Your task to perform on an android device: toggle data saver in the chrome app Image 0: 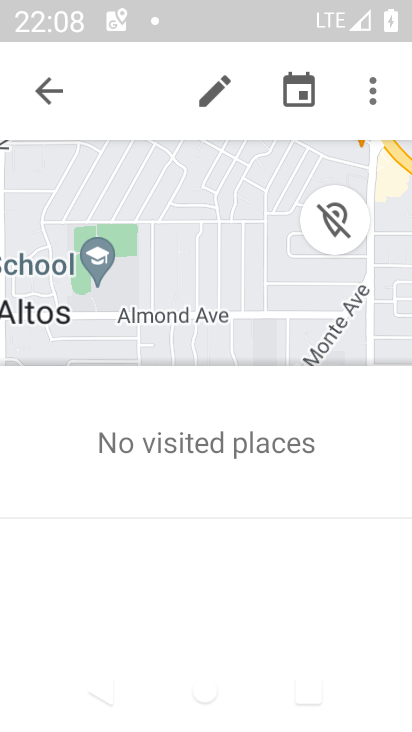
Step 0: press home button
Your task to perform on an android device: toggle data saver in the chrome app Image 1: 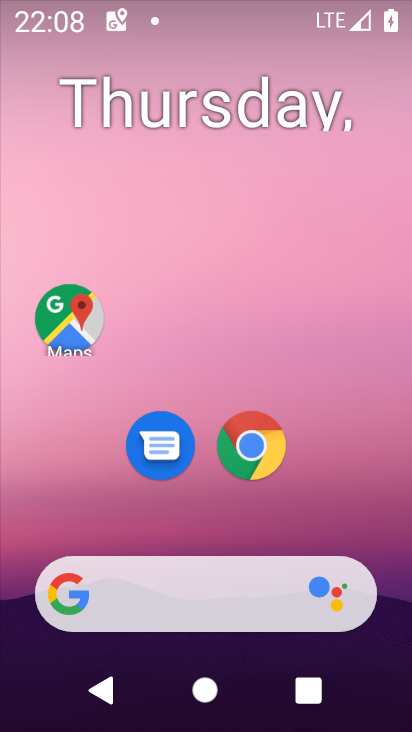
Step 1: drag from (223, 512) to (216, 169)
Your task to perform on an android device: toggle data saver in the chrome app Image 2: 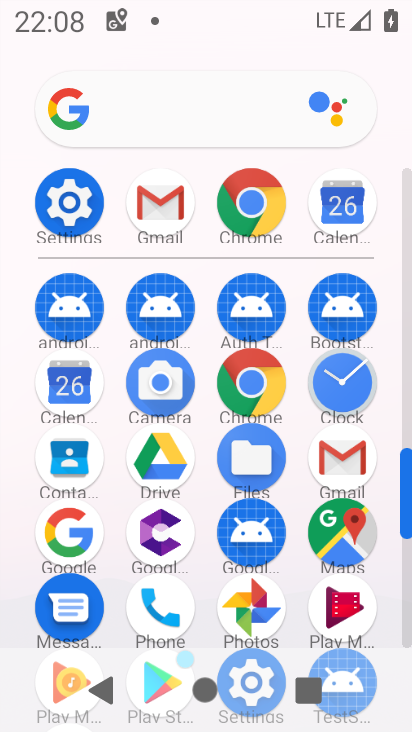
Step 2: click (245, 396)
Your task to perform on an android device: toggle data saver in the chrome app Image 3: 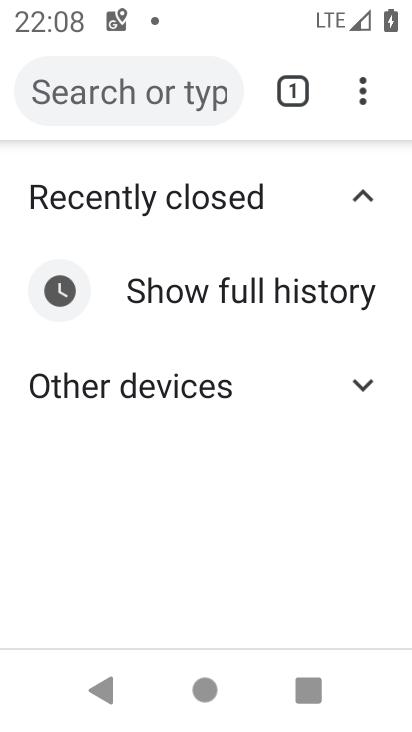
Step 3: click (367, 94)
Your task to perform on an android device: toggle data saver in the chrome app Image 4: 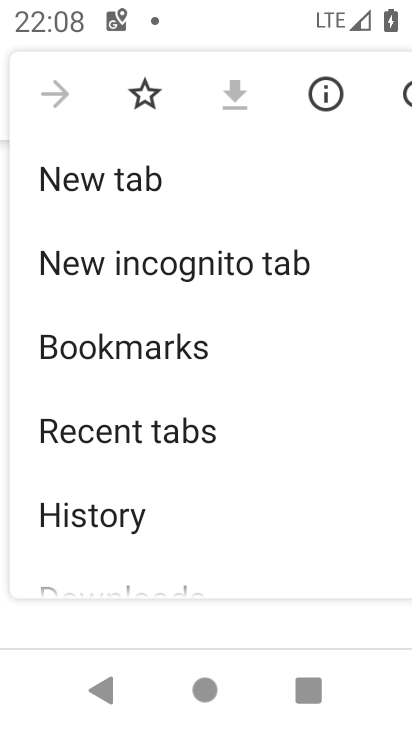
Step 4: drag from (211, 453) to (225, 166)
Your task to perform on an android device: toggle data saver in the chrome app Image 5: 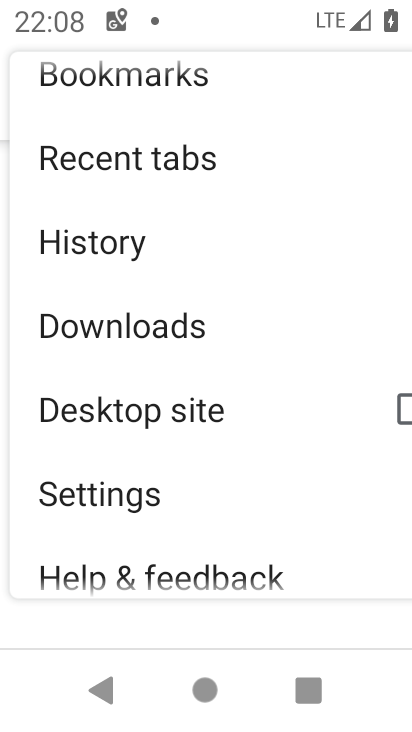
Step 5: click (161, 506)
Your task to perform on an android device: toggle data saver in the chrome app Image 6: 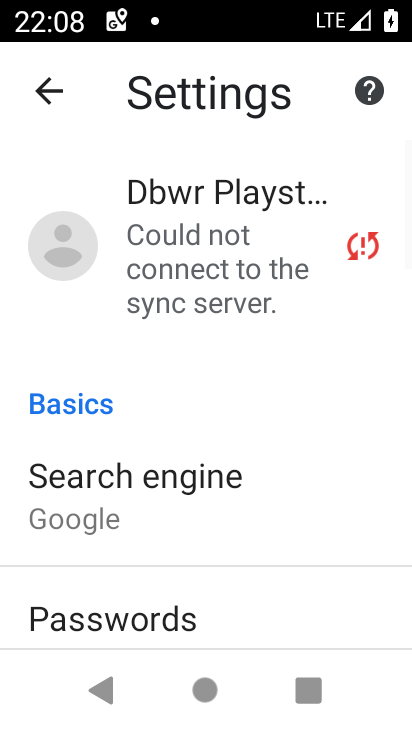
Step 6: drag from (174, 571) to (229, 217)
Your task to perform on an android device: toggle data saver in the chrome app Image 7: 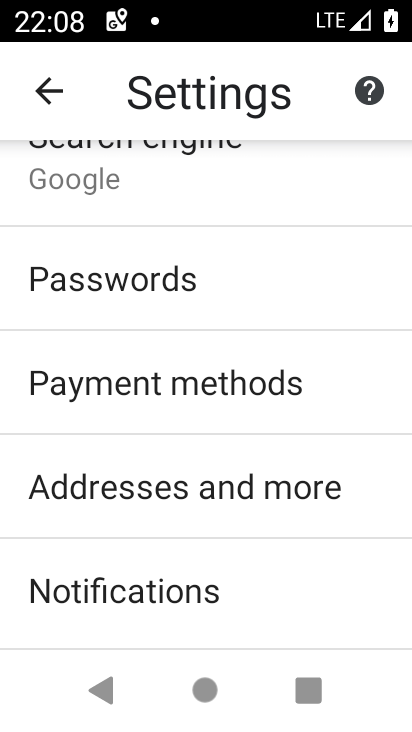
Step 7: drag from (187, 592) to (227, 287)
Your task to perform on an android device: toggle data saver in the chrome app Image 8: 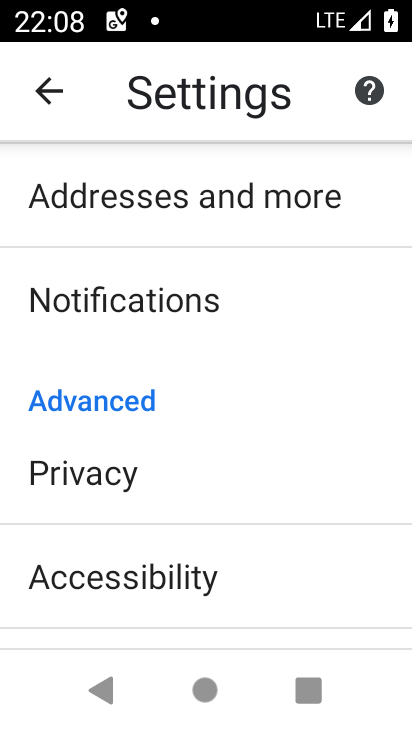
Step 8: drag from (169, 557) to (214, 236)
Your task to perform on an android device: toggle data saver in the chrome app Image 9: 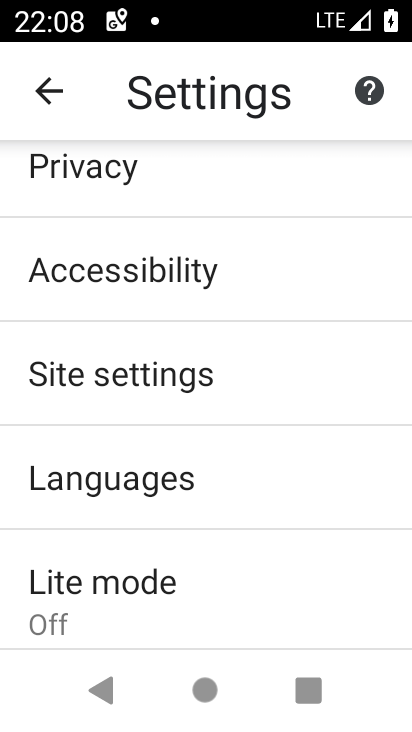
Step 9: click (157, 578)
Your task to perform on an android device: toggle data saver in the chrome app Image 10: 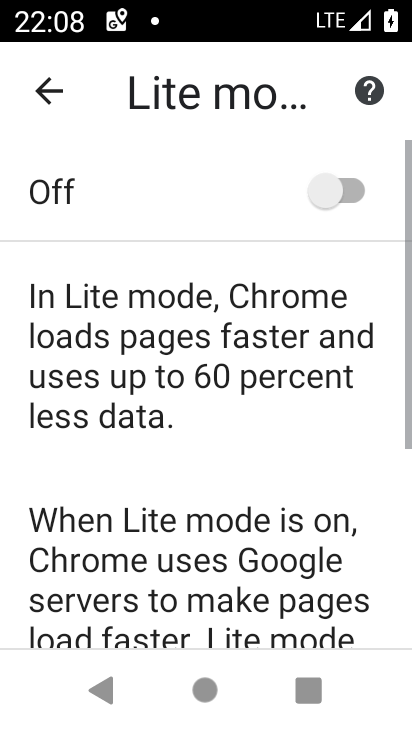
Step 10: click (323, 208)
Your task to perform on an android device: toggle data saver in the chrome app Image 11: 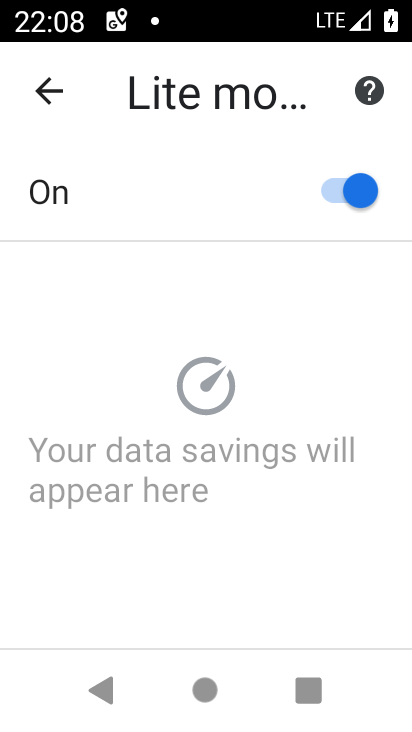
Step 11: task complete